Your task to perform on an android device: check data usage Image 0: 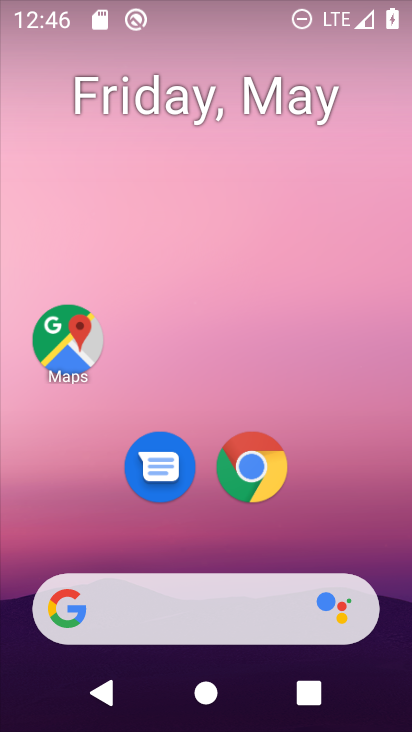
Step 0: drag from (211, 566) to (232, 19)
Your task to perform on an android device: check data usage Image 1: 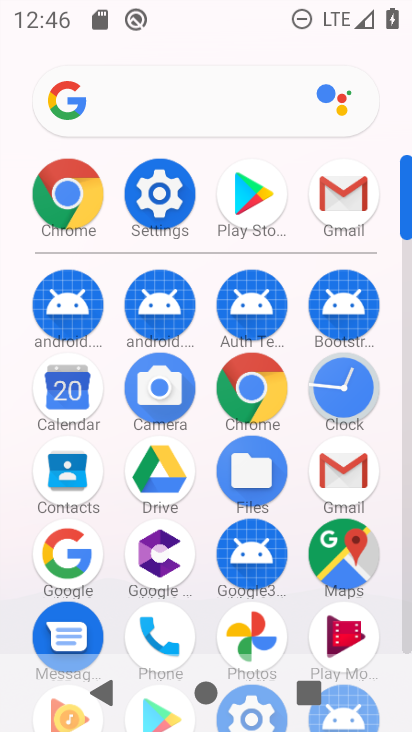
Step 1: click (172, 193)
Your task to perform on an android device: check data usage Image 2: 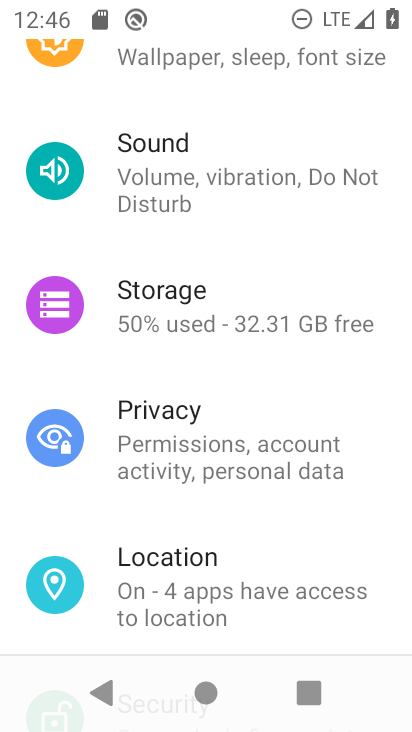
Step 2: drag from (216, 107) to (243, 631)
Your task to perform on an android device: check data usage Image 3: 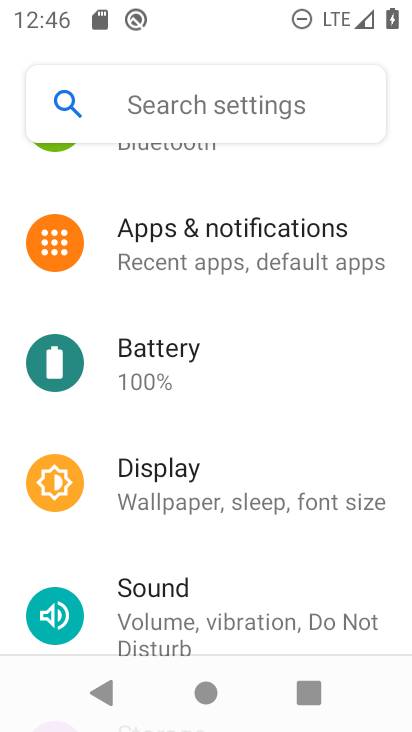
Step 3: drag from (256, 255) to (295, 622)
Your task to perform on an android device: check data usage Image 4: 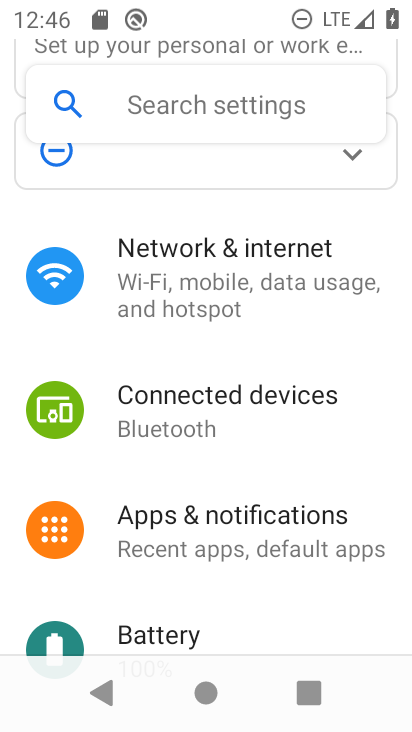
Step 4: click (284, 299)
Your task to perform on an android device: check data usage Image 5: 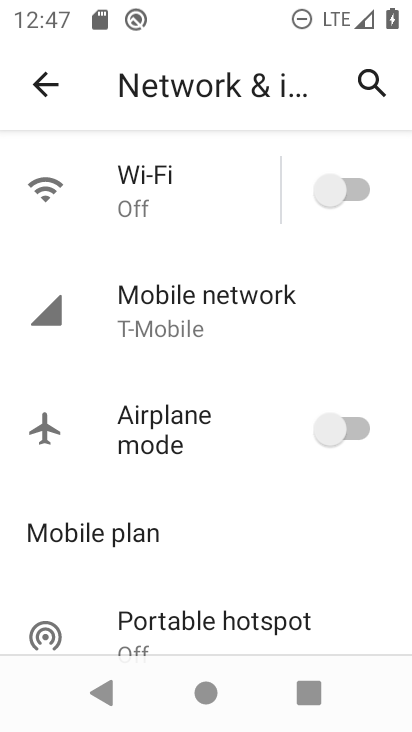
Step 5: click (220, 290)
Your task to perform on an android device: check data usage Image 6: 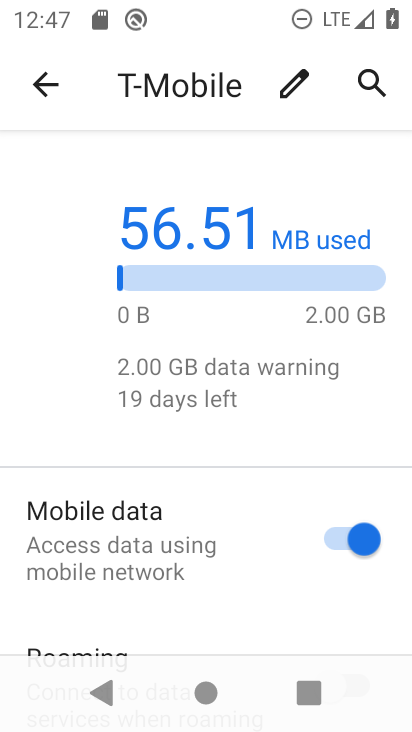
Step 6: task complete